Your task to perform on an android device: delete browsing data in the chrome app Image 0: 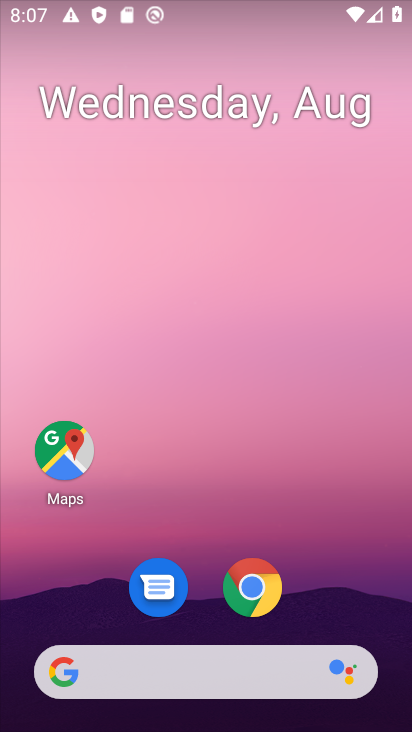
Step 0: drag from (225, 637) to (85, 126)
Your task to perform on an android device: delete browsing data in the chrome app Image 1: 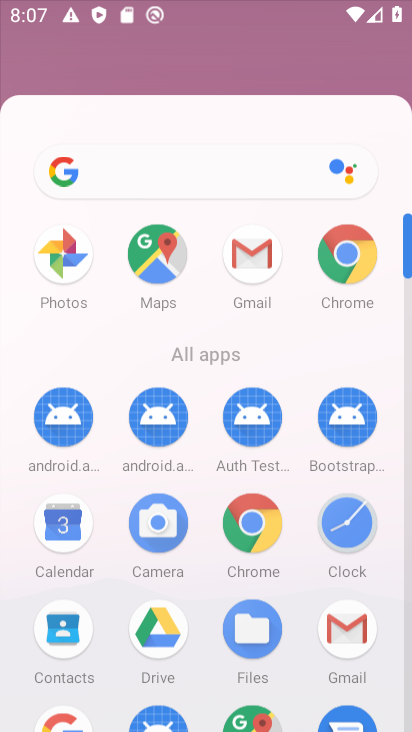
Step 1: drag from (228, 607) to (113, 189)
Your task to perform on an android device: delete browsing data in the chrome app Image 2: 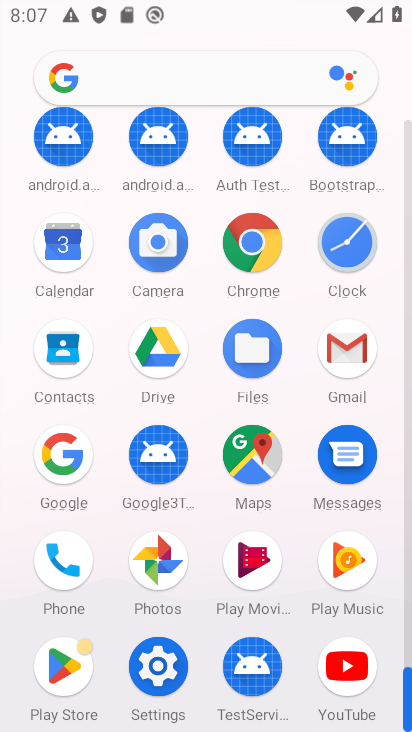
Step 2: click (252, 248)
Your task to perform on an android device: delete browsing data in the chrome app Image 3: 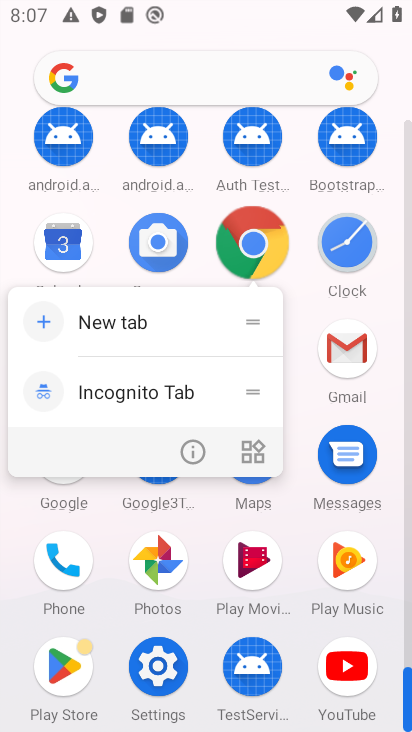
Step 3: click (252, 248)
Your task to perform on an android device: delete browsing data in the chrome app Image 4: 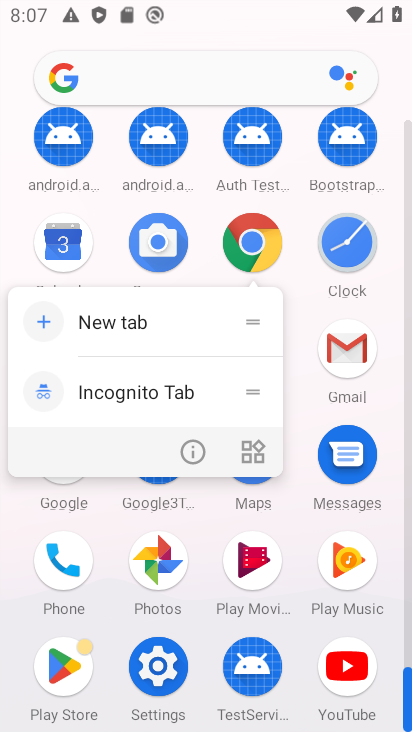
Step 4: click (252, 248)
Your task to perform on an android device: delete browsing data in the chrome app Image 5: 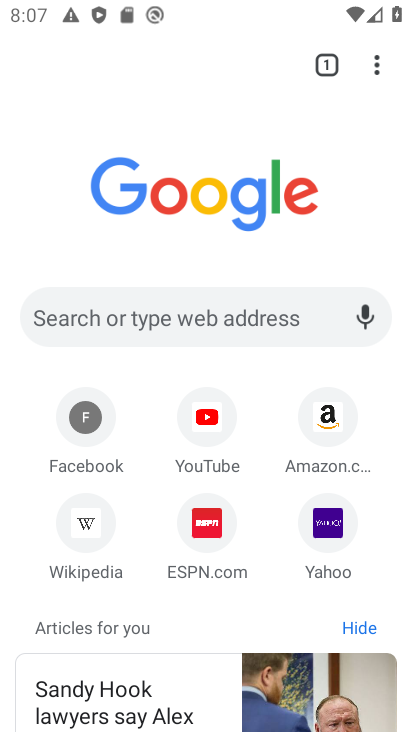
Step 5: drag from (371, 62) to (129, 365)
Your task to perform on an android device: delete browsing data in the chrome app Image 6: 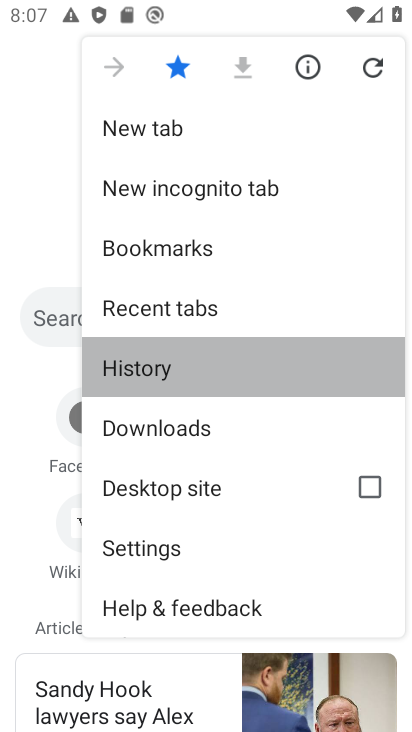
Step 6: click (129, 365)
Your task to perform on an android device: delete browsing data in the chrome app Image 7: 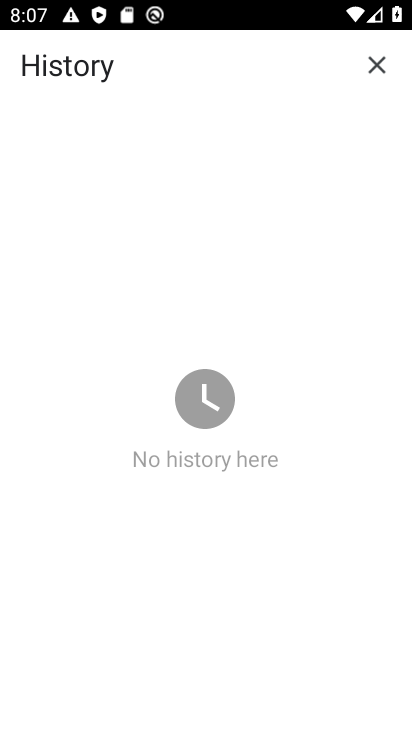
Step 7: click (375, 71)
Your task to perform on an android device: delete browsing data in the chrome app Image 8: 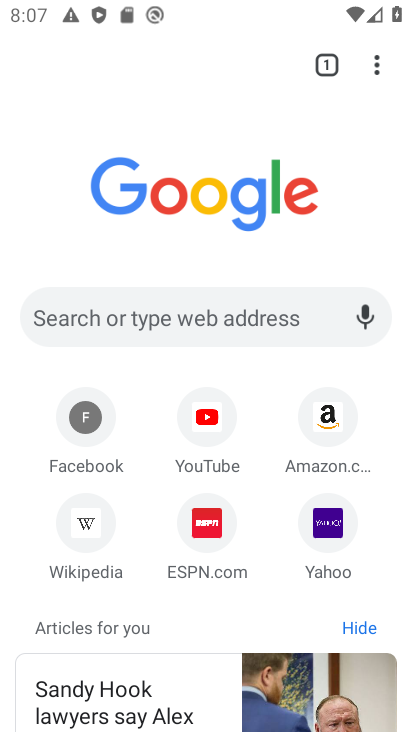
Step 8: task complete